Your task to perform on an android device: all mails in gmail Image 0: 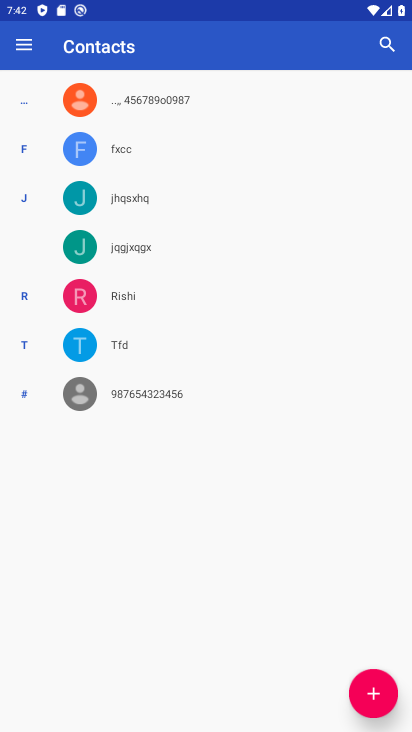
Step 0: press home button
Your task to perform on an android device: all mails in gmail Image 1: 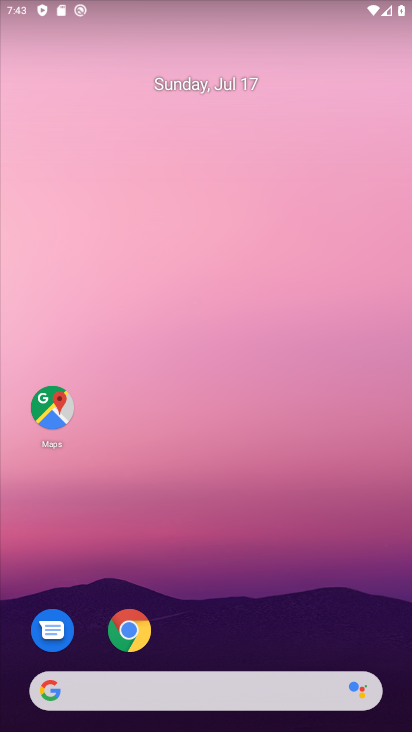
Step 1: drag from (164, 723) to (163, 118)
Your task to perform on an android device: all mails in gmail Image 2: 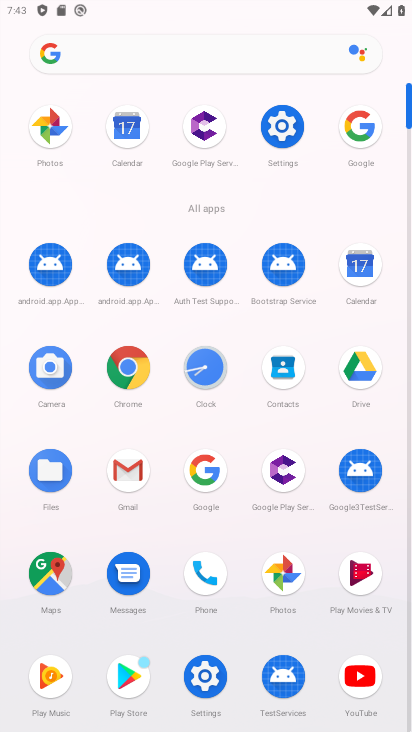
Step 2: click (132, 474)
Your task to perform on an android device: all mails in gmail Image 3: 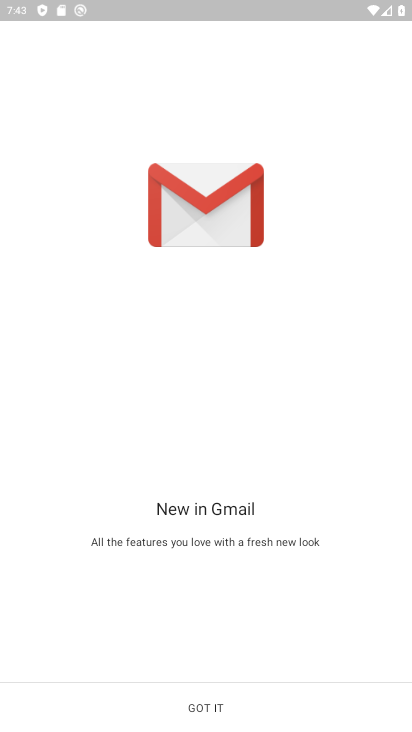
Step 3: click (288, 709)
Your task to perform on an android device: all mails in gmail Image 4: 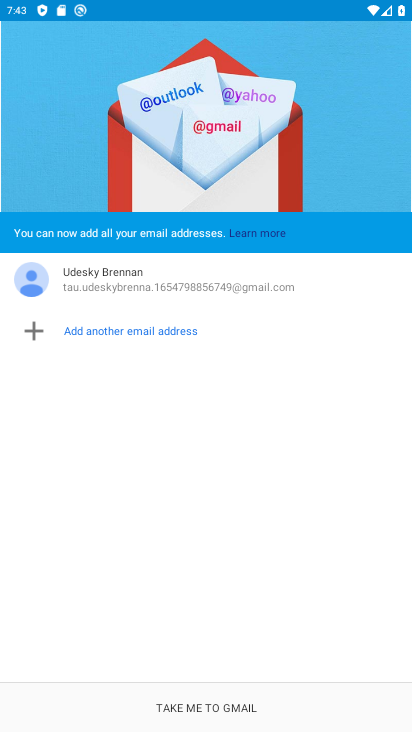
Step 4: click (222, 708)
Your task to perform on an android device: all mails in gmail Image 5: 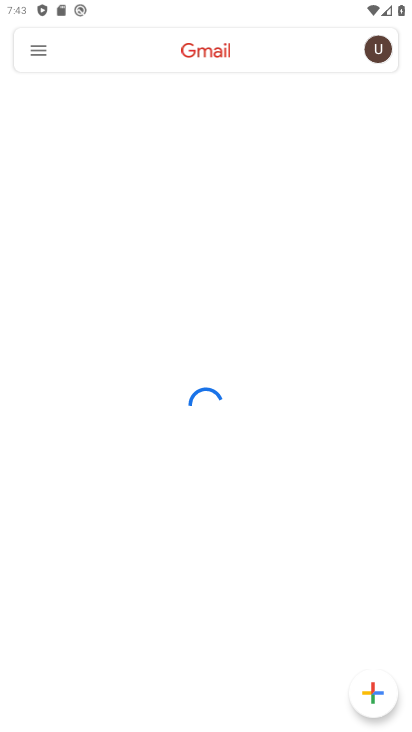
Step 5: click (42, 48)
Your task to perform on an android device: all mails in gmail Image 6: 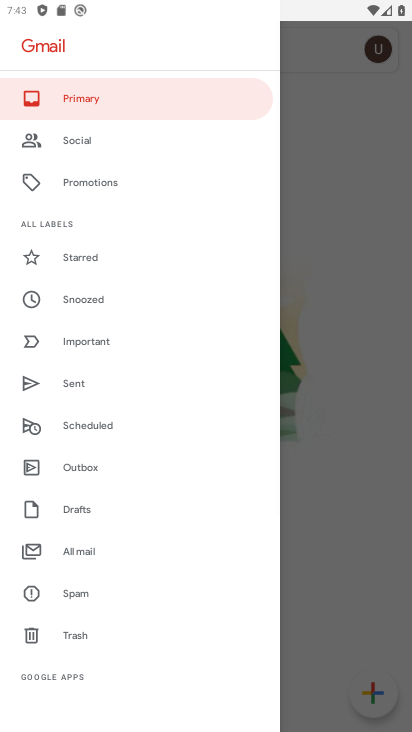
Step 6: drag from (176, 359) to (208, 167)
Your task to perform on an android device: all mails in gmail Image 7: 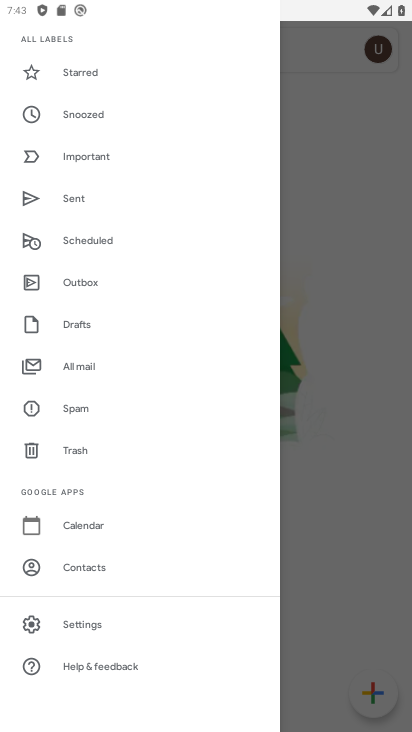
Step 7: click (121, 356)
Your task to perform on an android device: all mails in gmail Image 8: 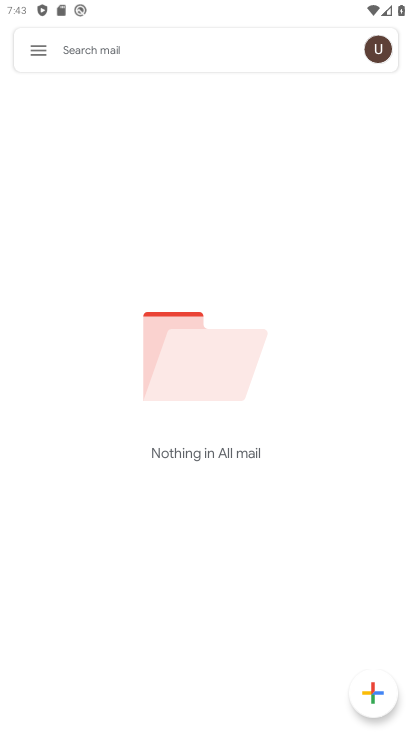
Step 8: task complete